Your task to perform on an android device: What's the weather going to be tomorrow? Image 0: 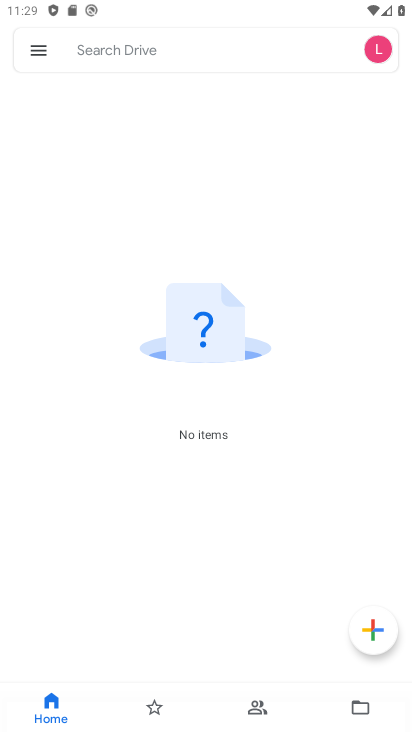
Step 0: press home button
Your task to perform on an android device: What's the weather going to be tomorrow? Image 1: 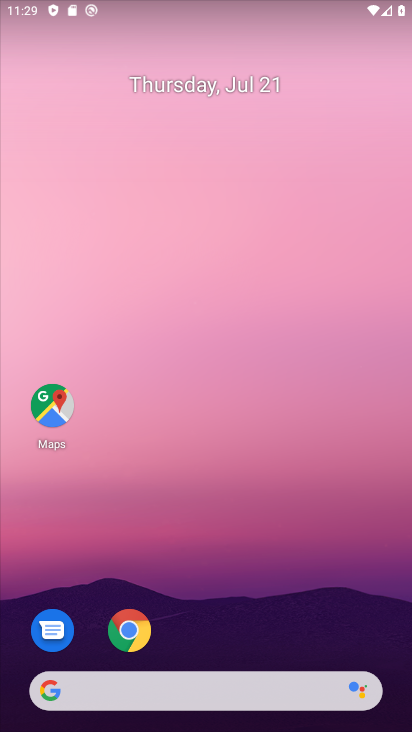
Step 1: click (45, 697)
Your task to perform on an android device: What's the weather going to be tomorrow? Image 2: 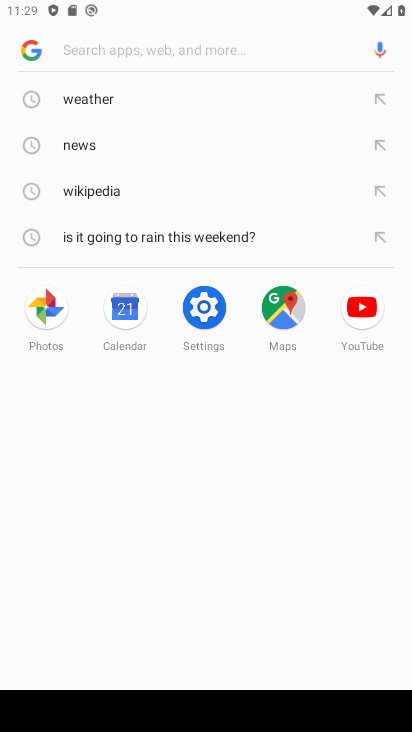
Step 2: type "What's the weather going to be tomorrow?"
Your task to perform on an android device: What's the weather going to be tomorrow? Image 3: 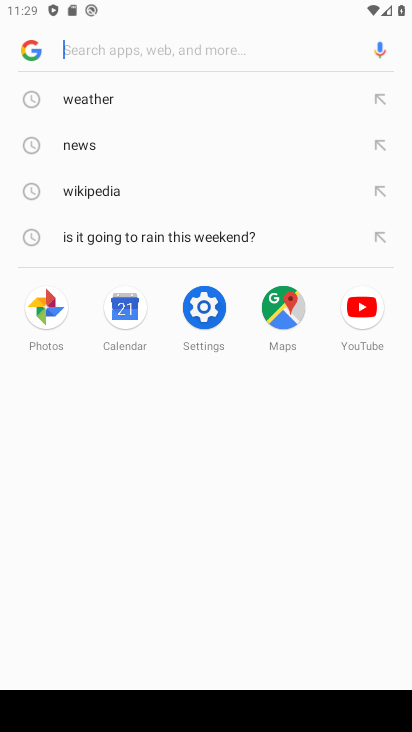
Step 3: drag from (102, 46) to (159, 47)
Your task to perform on an android device: What's the weather going to be tomorrow? Image 4: 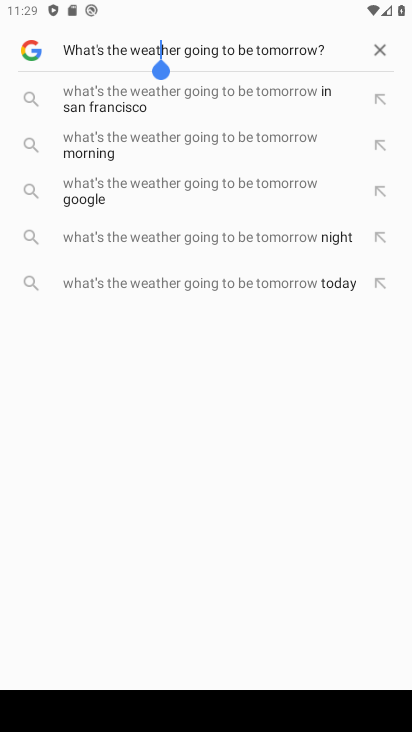
Step 4: press enter
Your task to perform on an android device: What's the weather going to be tomorrow? Image 5: 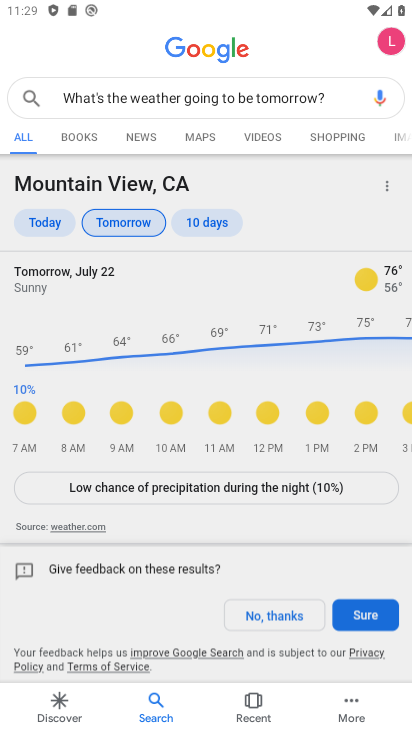
Step 5: task complete